Your task to perform on an android device: turn notification dots off Image 0: 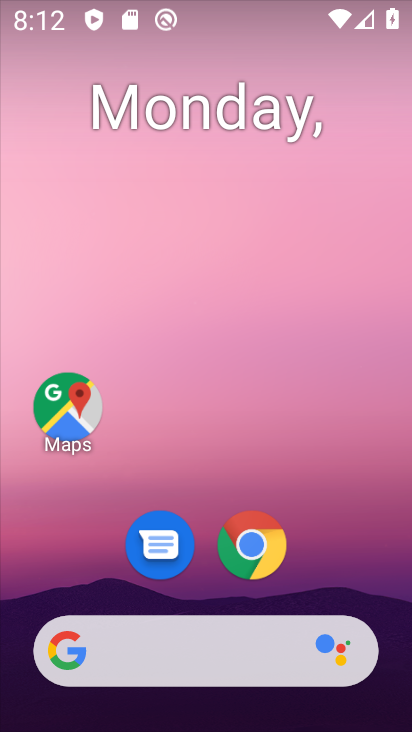
Step 0: click (317, 128)
Your task to perform on an android device: turn notification dots off Image 1: 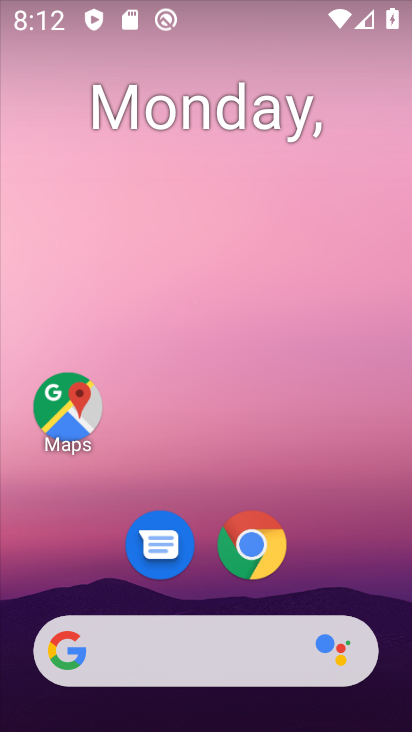
Step 1: drag from (331, 439) to (409, 417)
Your task to perform on an android device: turn notification dots off Image 2: 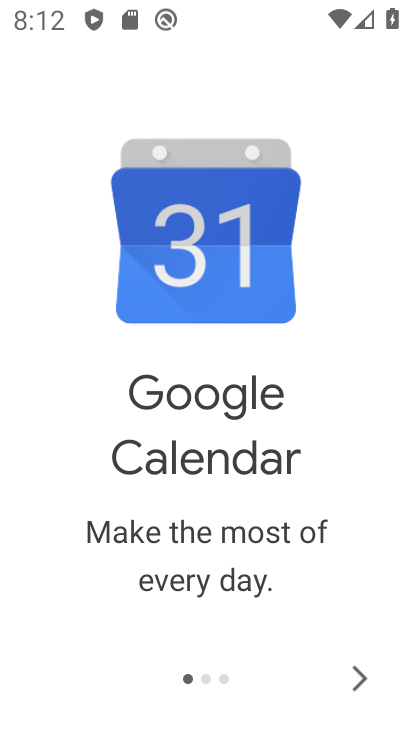
Step 2: press home button
Your task to perform on an android device: turn notification dots off Image 3: 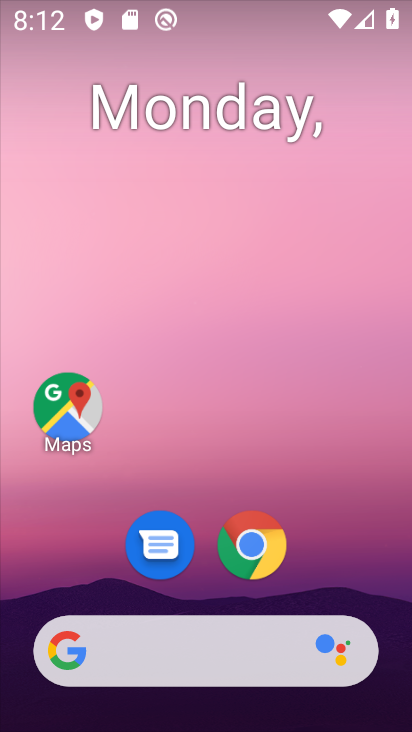
Step 3: drag from (334, 477) to (308, 10)
Your task to perform on an android device: turn notification dots off Image 4: 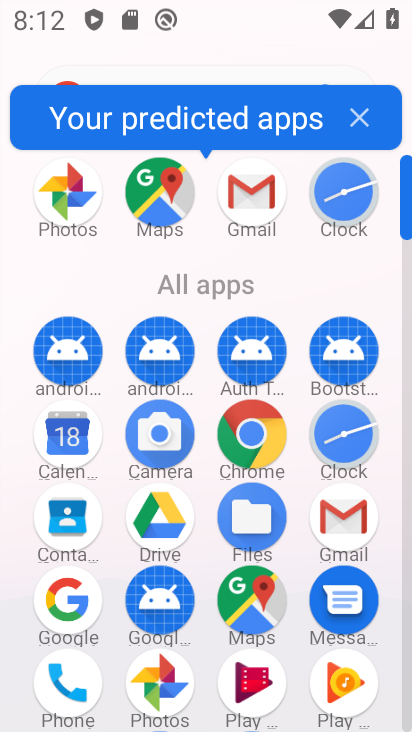
Step 4: drag from (289, 234) to (271, 28)
Your task to perform on an android device: turn notification dots off Image 5: 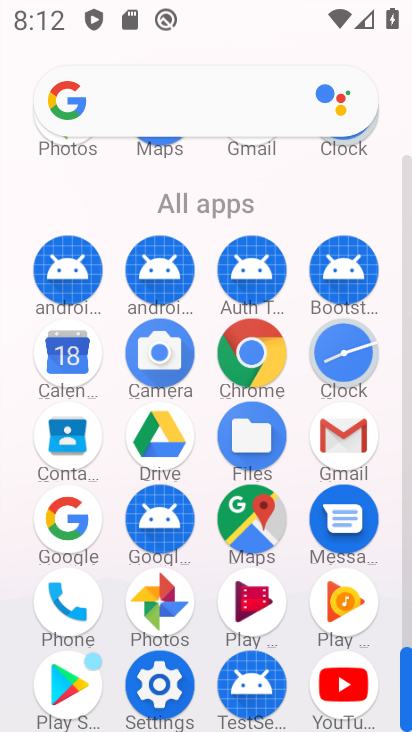
Step 5: click (170, 670)
Your task to perform on an android device: turn notification dots off Image 6: 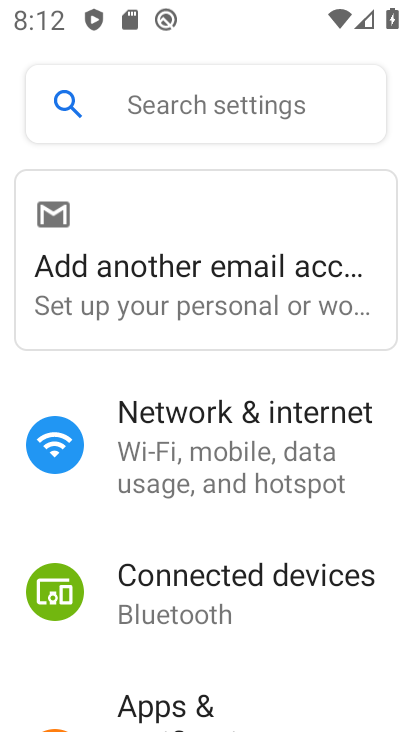
Step 6: drag from (213, 592) to (193, 306)
Your task to perform on an android device: turn notification dots off Image 7: 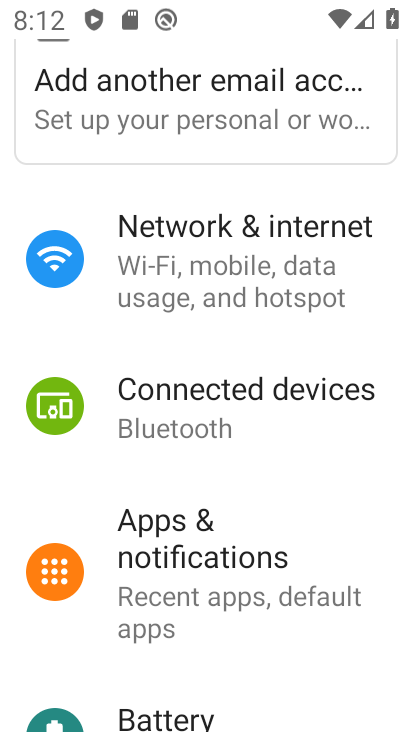
Step 7: click (174, 547)
Your task to perform on an android device: turn notification dots off Image 8: 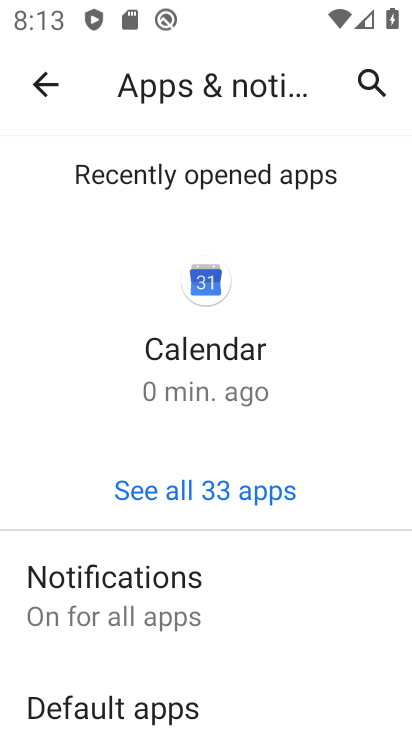
Step 8: drag from (212, 583) to (209, 316)
Your task to perform on an android device: turn notification dots off Image 9: 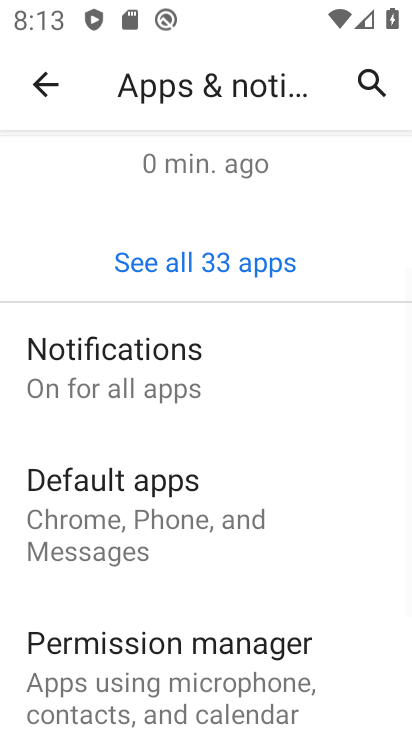
Step 9: click (180, 352)
Your task to perform on an android device: turn notification dots off Image 10: 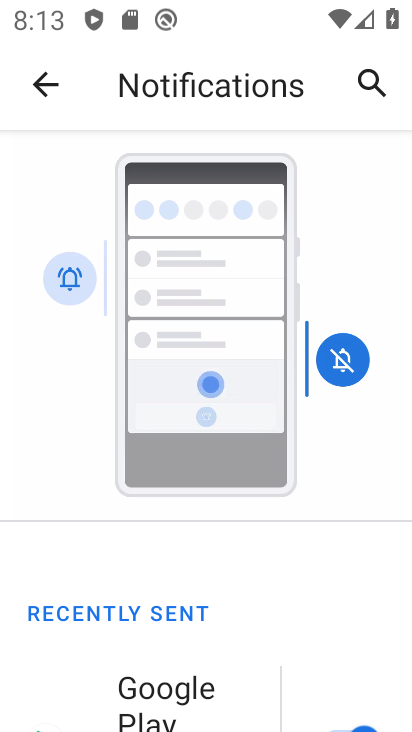
Step 10: drag from (202, 640) to (180, 205)
Your task to perform on an android device: turn notification dots off Image 11: 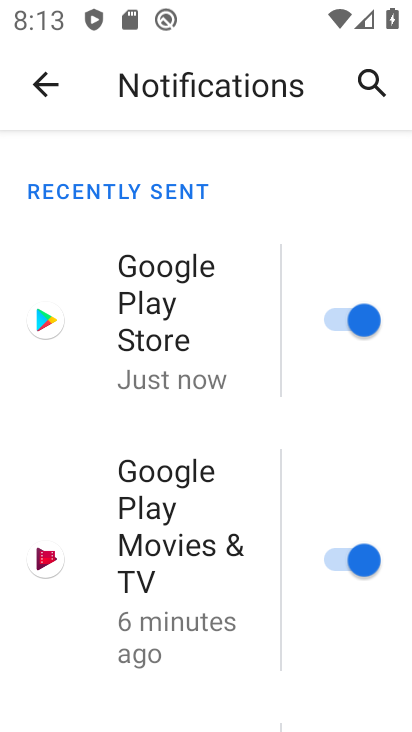
Step 11: drag from (239, 710) to (199, 164)
Your task to perform on an android device: turn notification dots off Image 12: 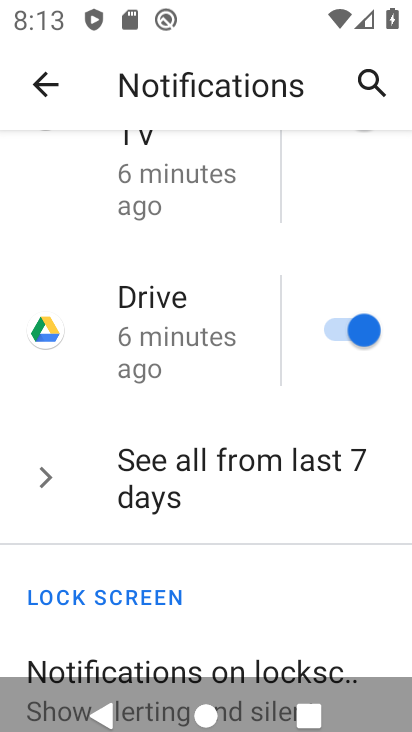
Step 12: drag from (254, 554) to (228, 134)
Your task to perform on an android device: turn notification dots off Image 13: 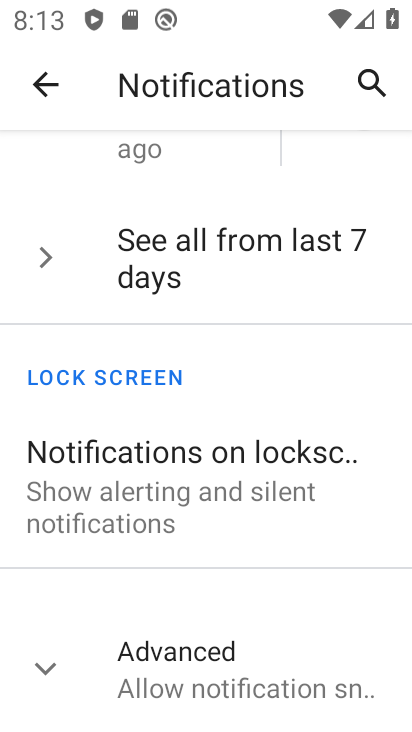
Step 13: click (55, 655)
Your task to perform on an android device: turn notification dots off Image 14: 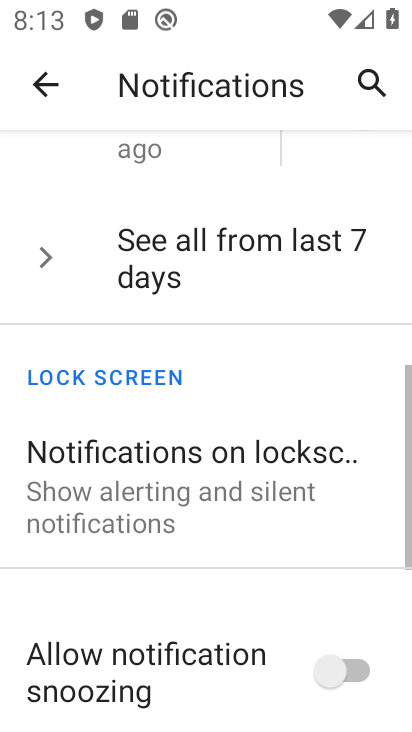
Step 14: drag from (238, 605) to (199, 185)
Your task to perform on an android device: turn notification dots off Image 15: 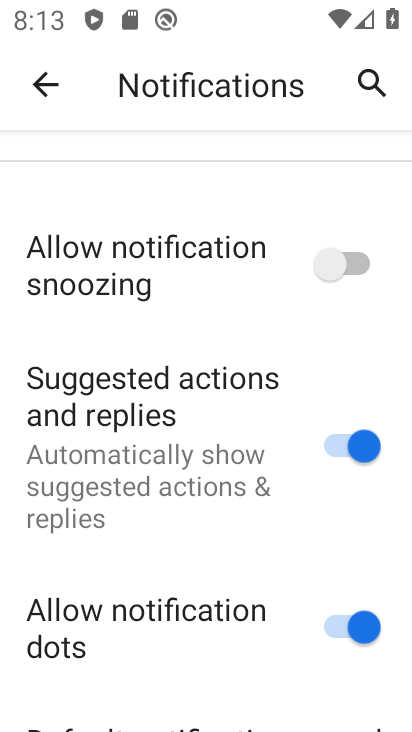
Step 15: click (340, 626)
Your task to perform on an android device: turn notification dots off Image 16: 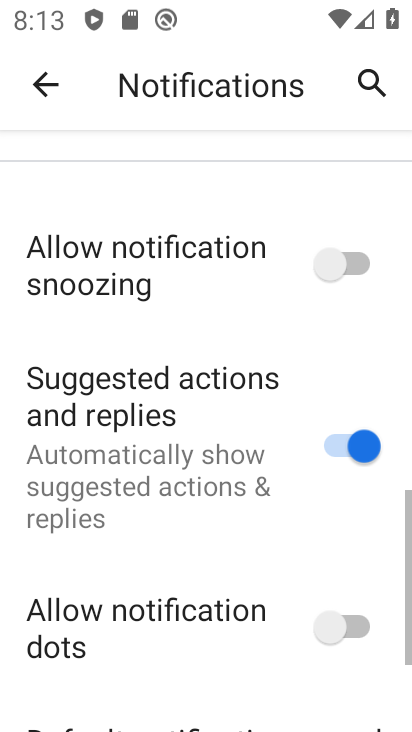
Step 16: task complete